Your task to perform on an android device: open sync settings in chrome Image 0: 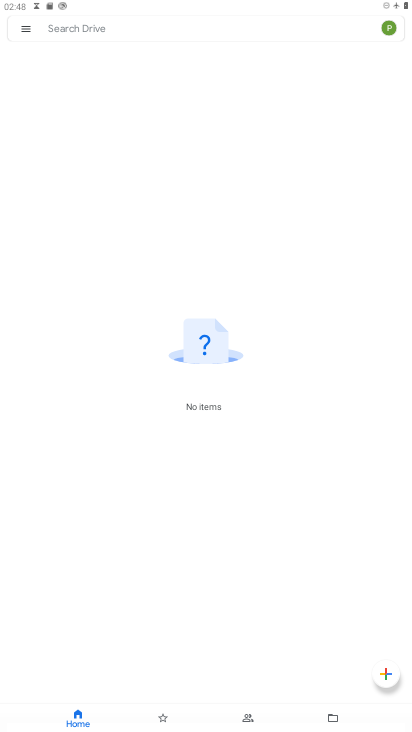
Step 0: press home button
Your task to perform on an android device: open sync settings in chrome Image 1: 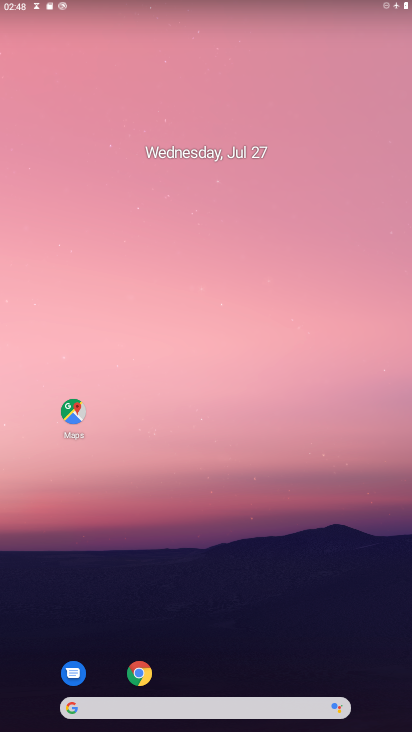
Step 1: drag from (280, 623) to (275, 166)
Your task to perform on an android device: open sync settings in chrome Image 2: 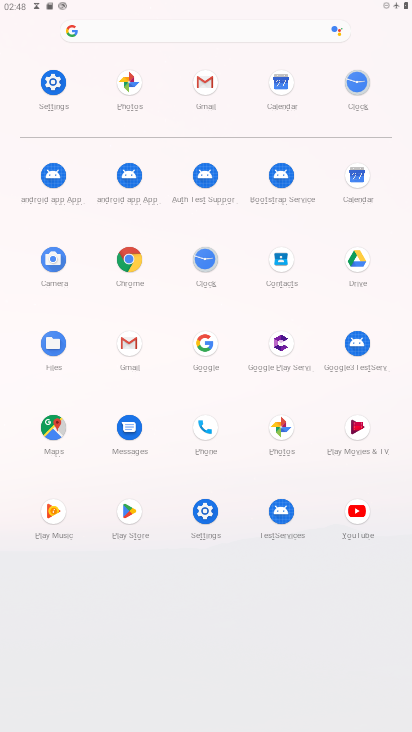
Step 2: click (127, 262)
Your task to perform on an android device: open sync settings in chrome Image 3: 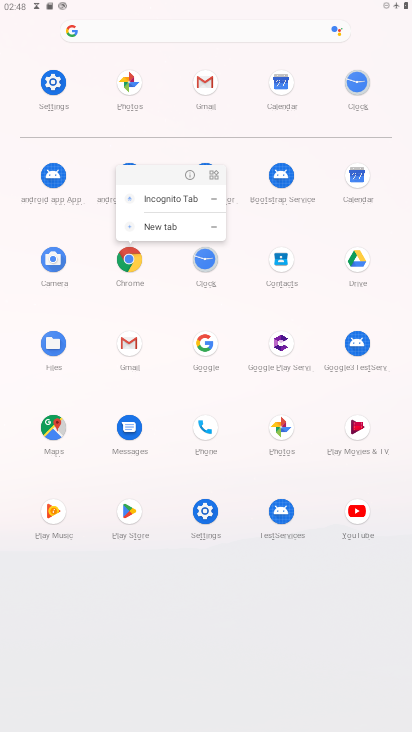
Step 3: click (125, 259)
Your task to perform on an android device: open sync settings in chrome Image 4: 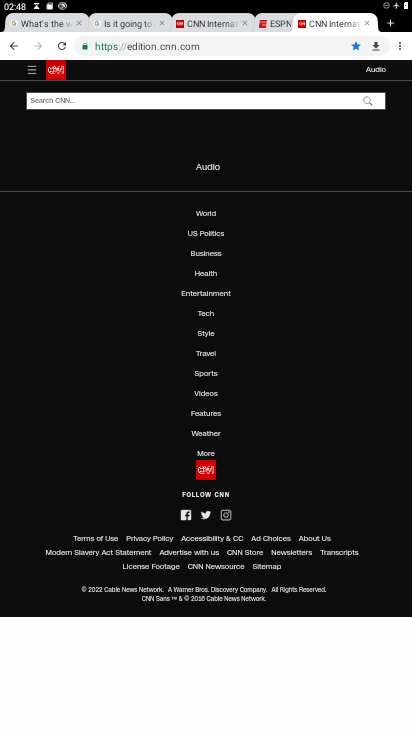
Step 4: click (399, 42)
Your task to perform on an android device: open sync settings in chrome Image 5: 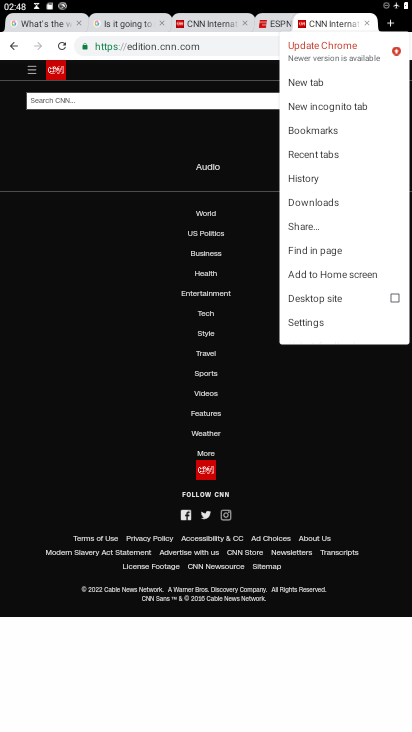
Step 5: click (306, 324)
Your task to perform on an android device: open sync settings in chrome Image 6: 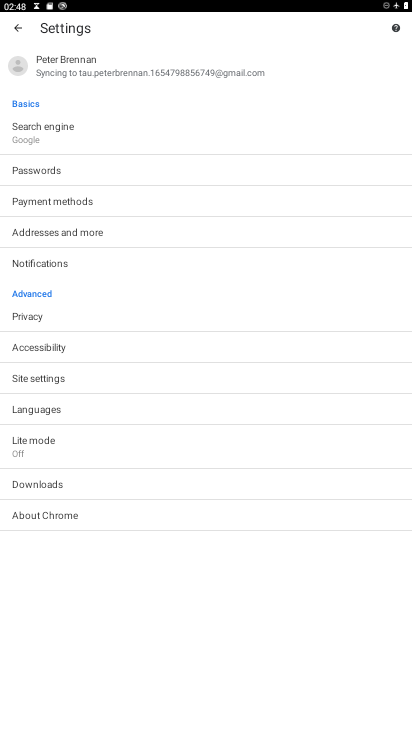
Step 6: click (65, 72)
Your task to perform on an android device: open sync settings in chrome Image 7: 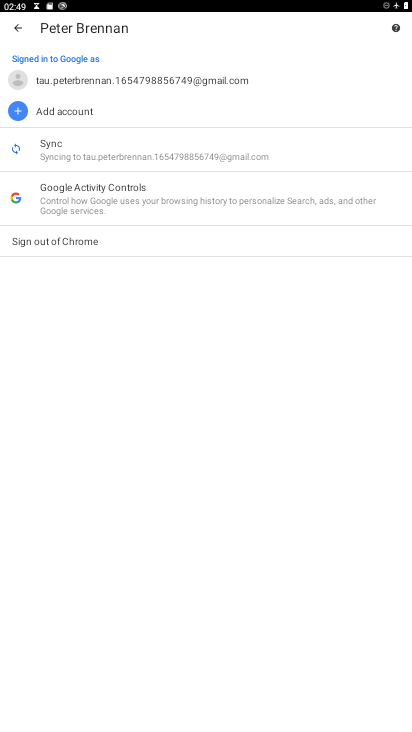
Step 7: click (98, 146)
Your task to perform on an android device: open sync settings in chrome Image 8: 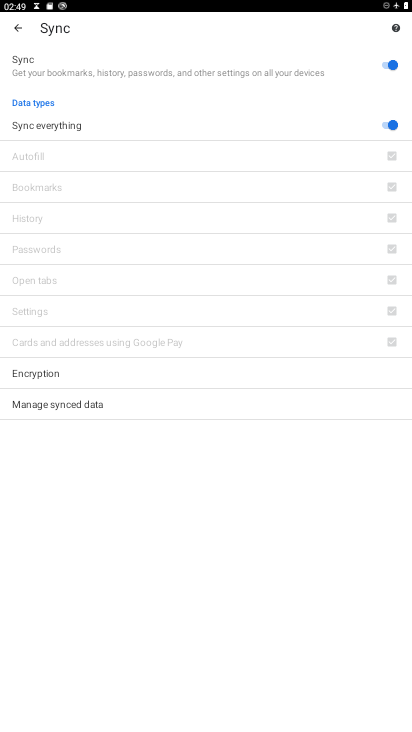
Step 8: task complete